Your task to perform on an android device: turn on javascript in the chrome app Image 0: 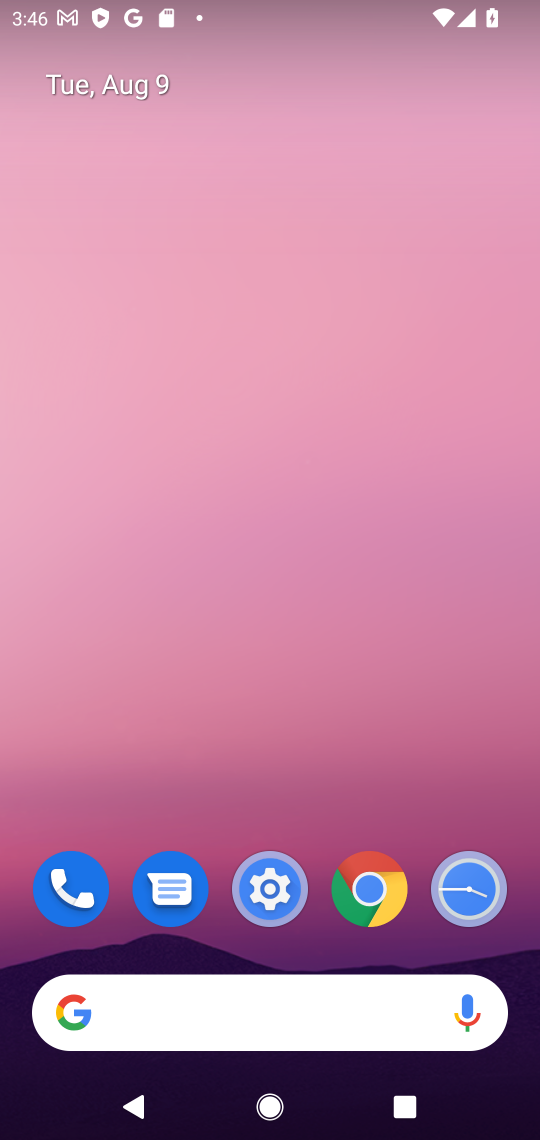
Step 0: click (372, 881)
Your task to perform on an android device: turn on javascript in the chrome app Image 1: 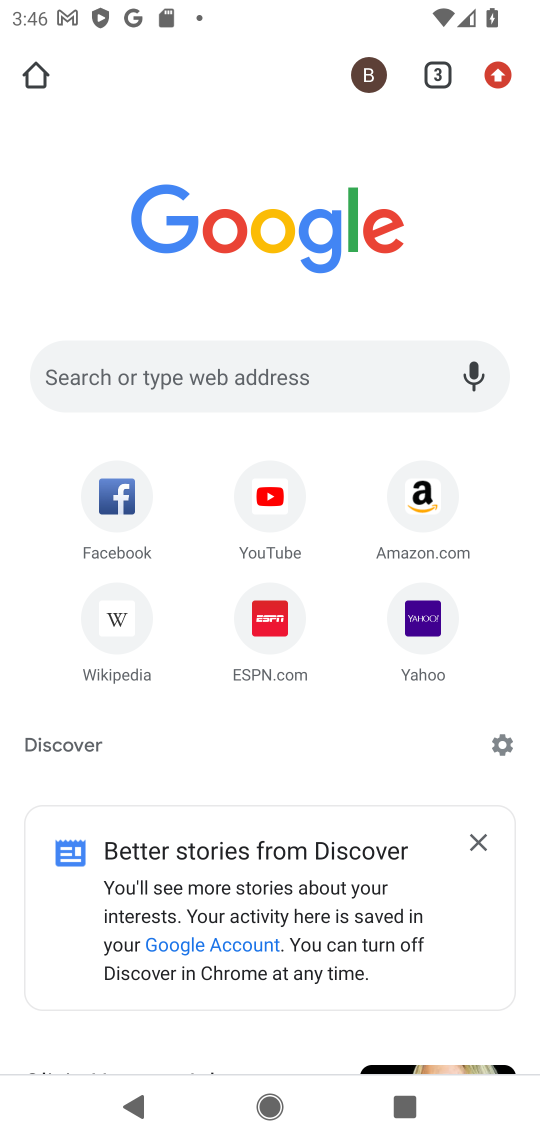
Step 1: click (503, 76)
Your task to perform on an android device: turn on javascript in the chrome app Image 2: 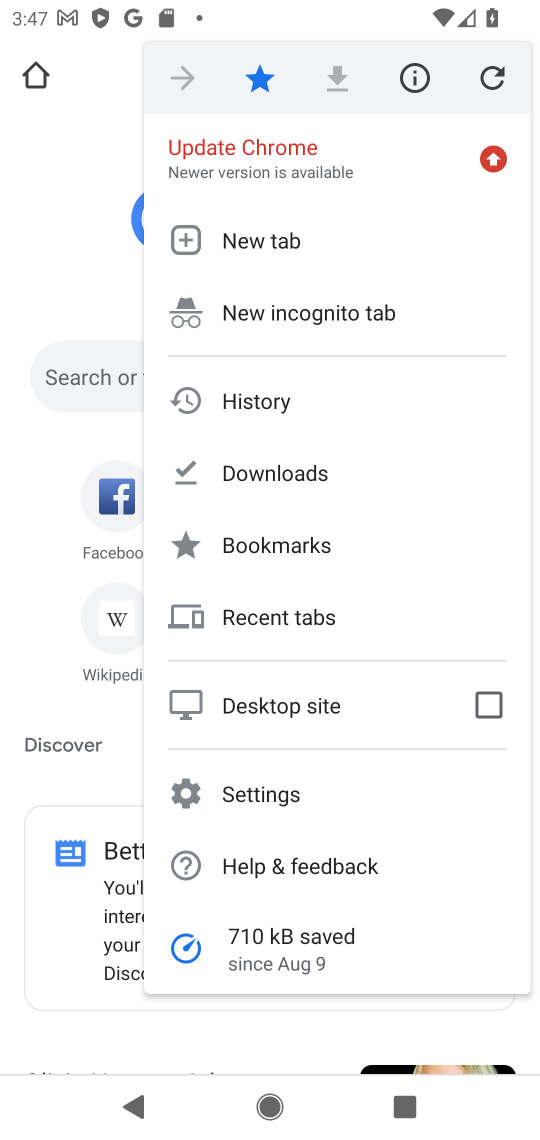
Step 2: click (281, 783)
Your task to perform on an android device: turn on javascript in the chrome app Image 3: 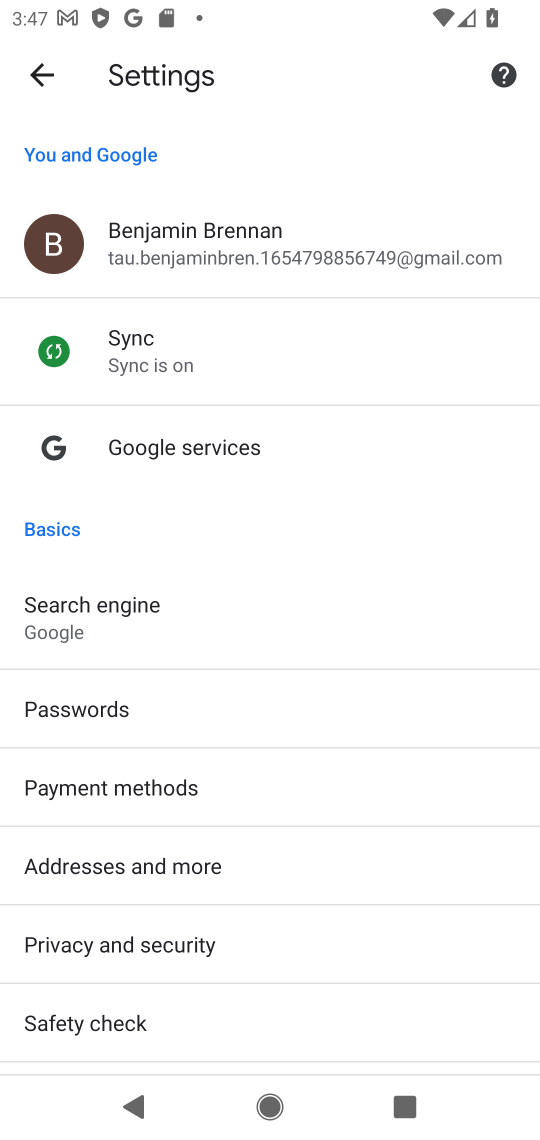
Step 3: drag from (289, 888) to (386, 194)
Your task to perform on an android device: turn on javascript in the chrome app Image 4: 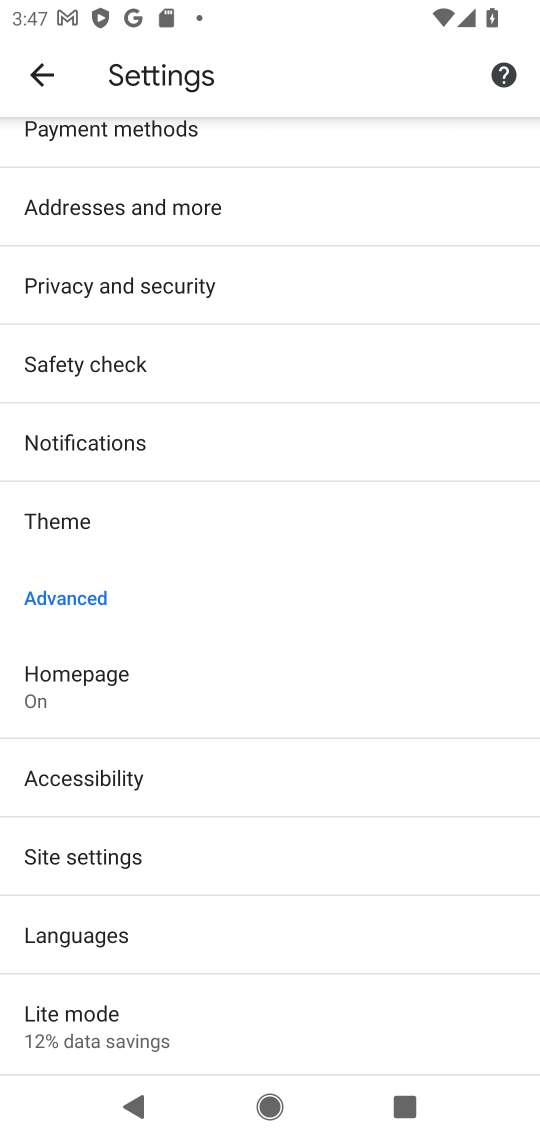
Step 4: click (206, 853)
Your task to perform on an android device: turn on javascript in the chrome app Image 5: 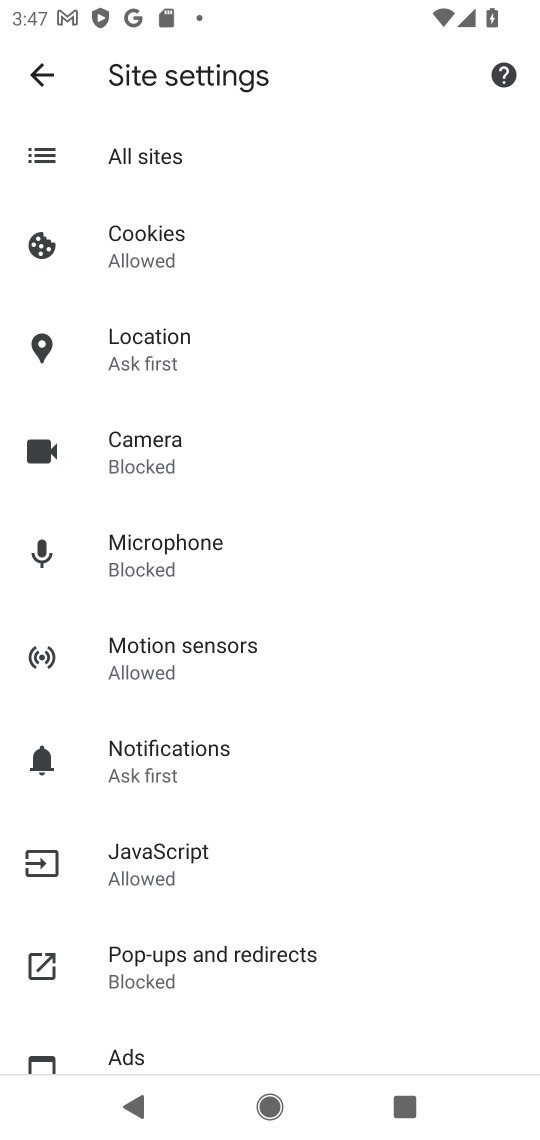
Step 5: click (206, 853)
Your task to perform on an android device: turn on javascript in the chrome app Image 6: 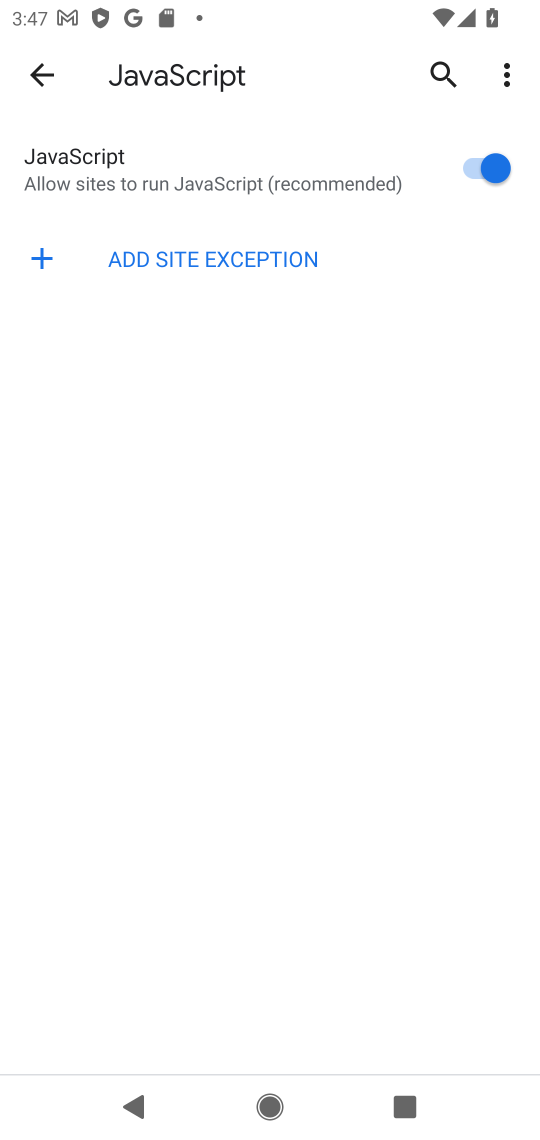
Step 6: task complete